Your task to perform on an android device: toggle data saver in the chrome app Image 0: 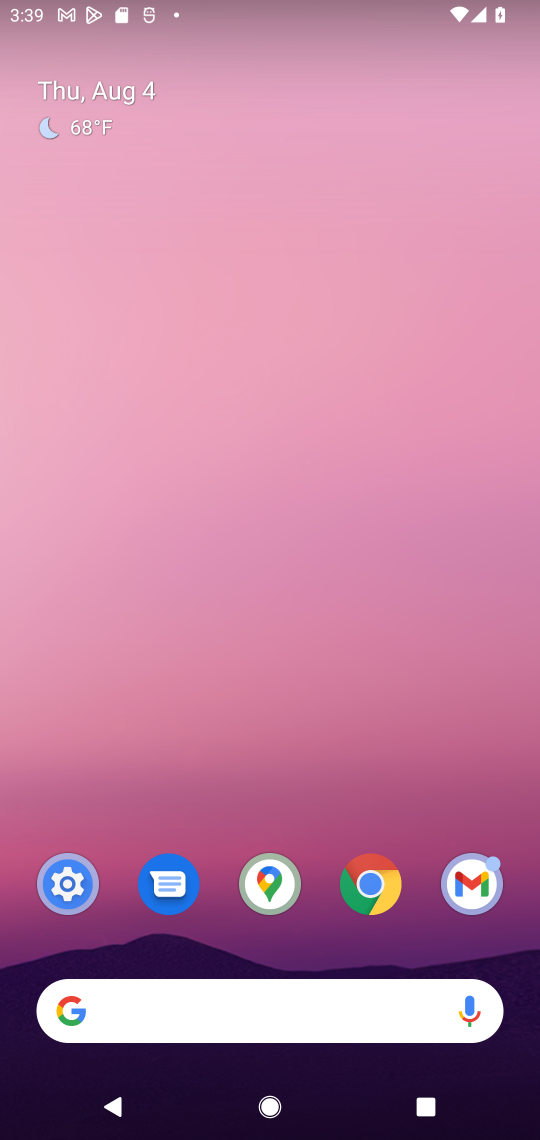
Step 0: click (368, 872)
Your task to perform on an android device: toggle data saver in the chrome app Image 1: 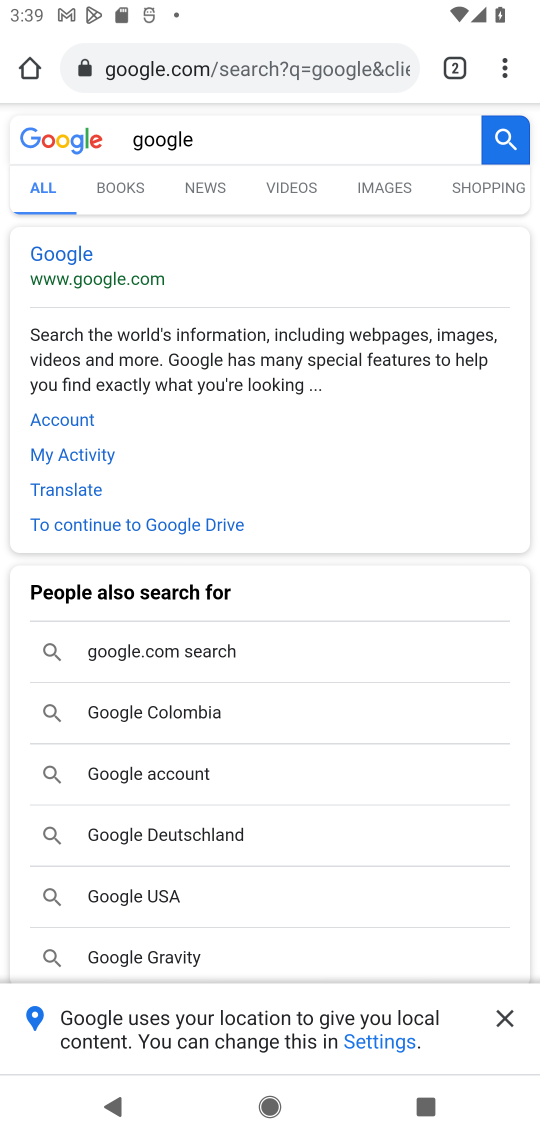
Step 1: click (499, 72)
Your task to perform on an android device: toggle data saver in the chrome app Image 2: 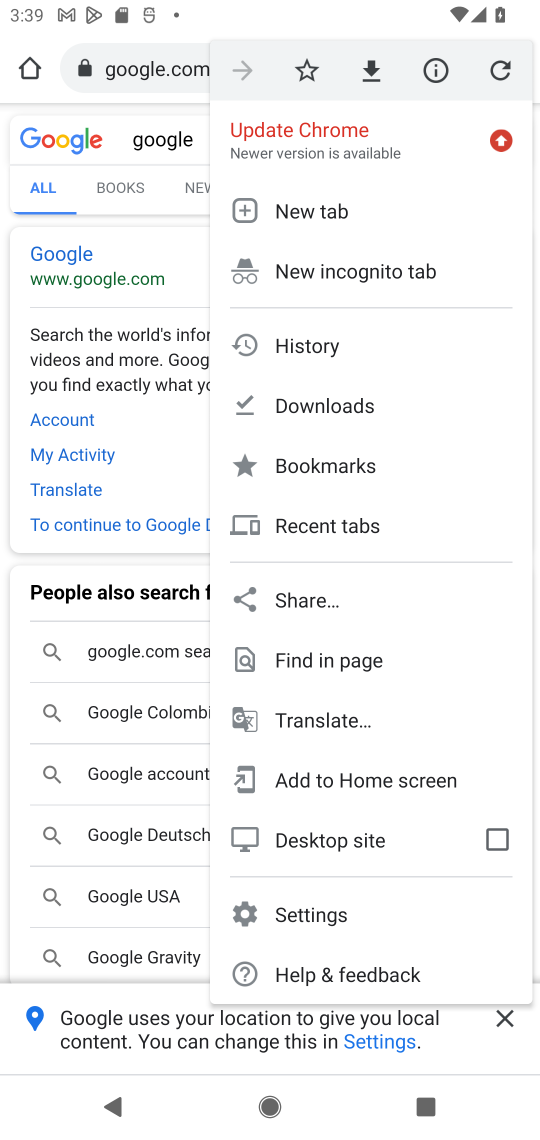
Step 2: click (304, 903)
Your task to perform on an android device: toggle data saver in the chrome app Image 3: 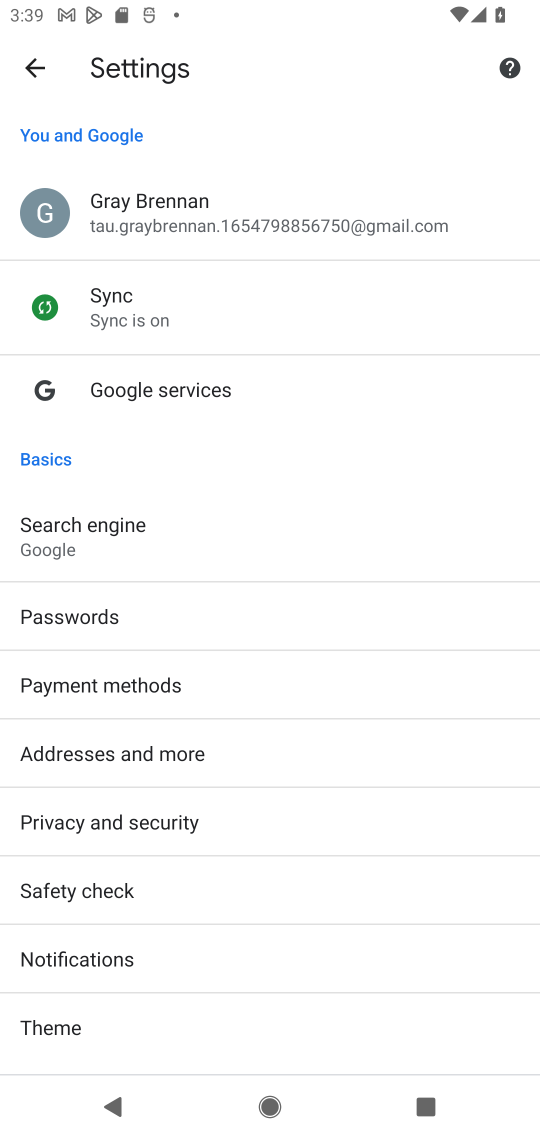
Step 3: drag from (223, 957) to (273, 283)
Your task to perform on an android device: toggle data saver in the chrome app Image 4: 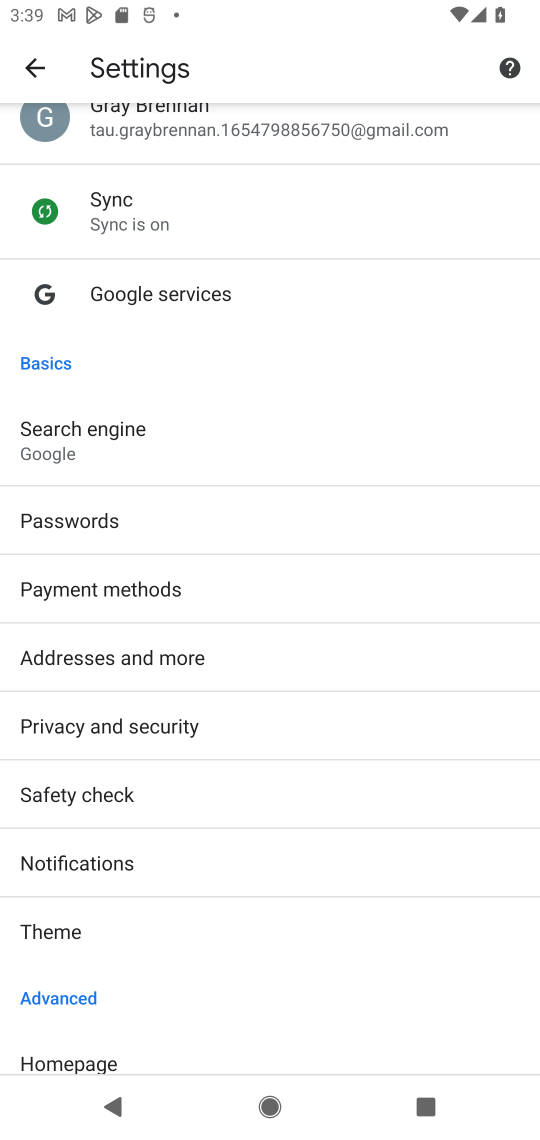
Step 4: drag from (270, 937) to (308, 479)
Your task to perform on an android device: toggle data saver in the chrome app Image 5: 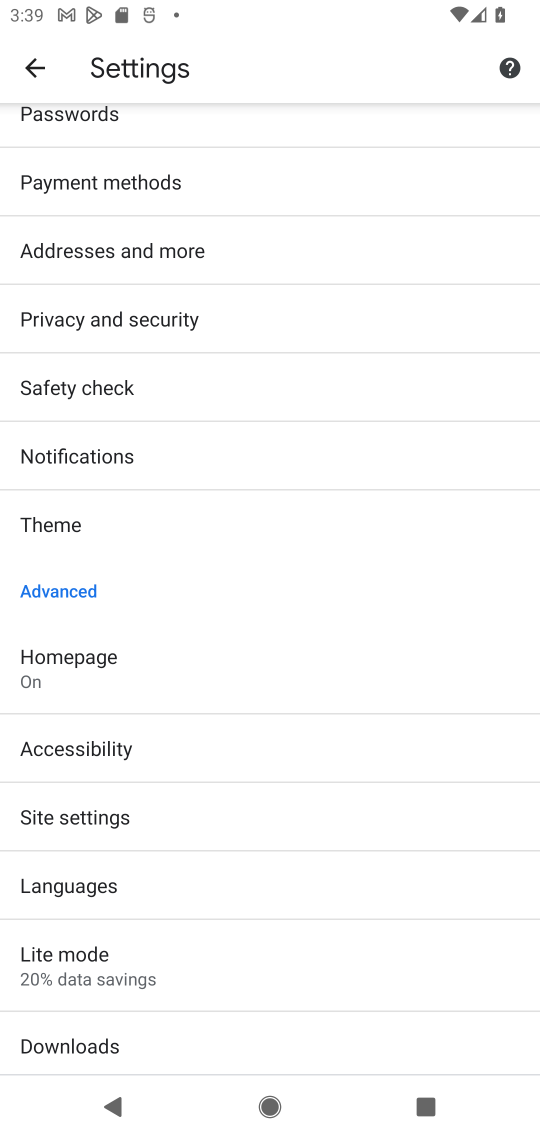
Step 5: click (127, 978)
Your task to perform on an android device: toggle data saver in the chrome app Image 6: 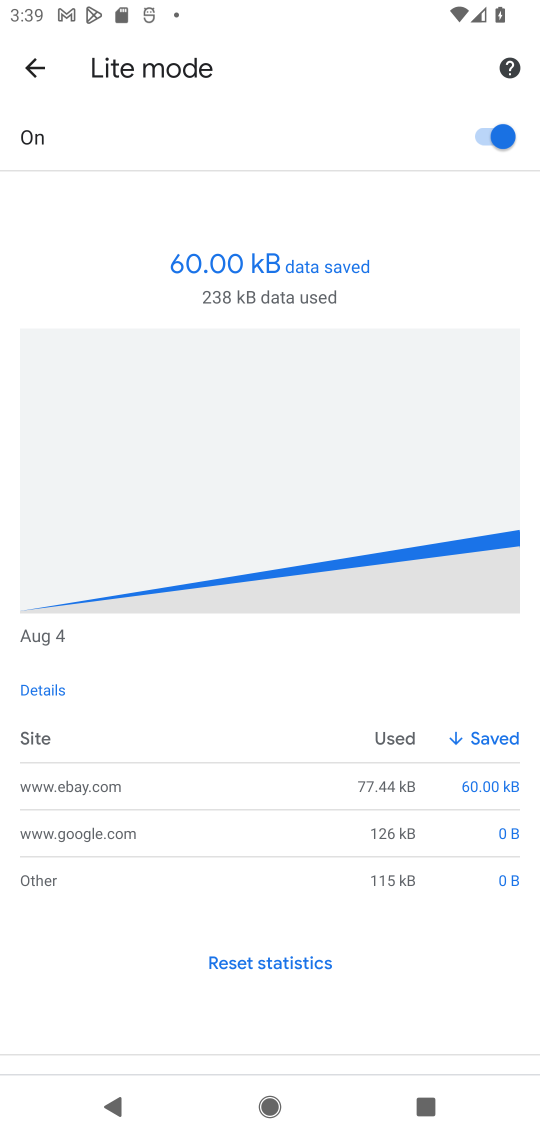
Step 6: click (462, 138)
Your task to perform on an android device: toggle data saver in the chrome app Image 7: 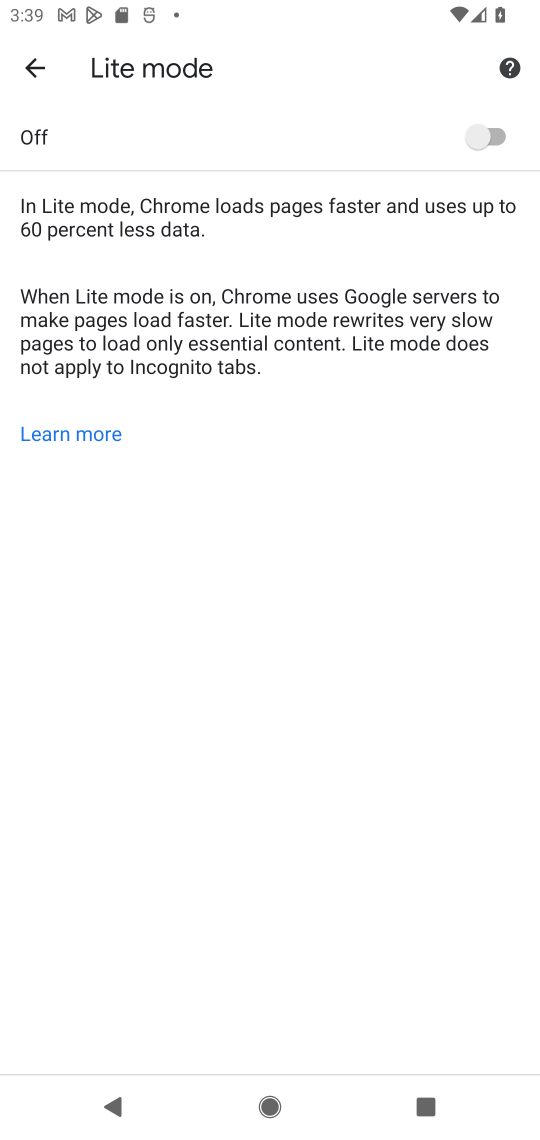
Step 7: task complete